Your task to perform on an android device: Add "razer blade" to the cart on walmart.com, then select checkout. Image 0: 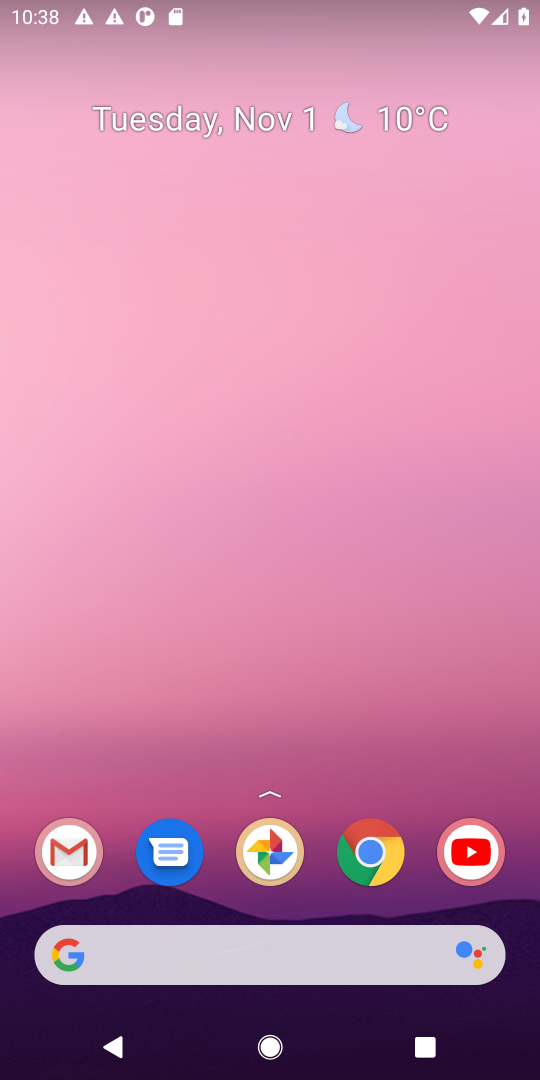
Step 0: press home button
Your task to perform on an android device: Add "razer blade" to the cart on walmart.com, then select checkout. Image 1: 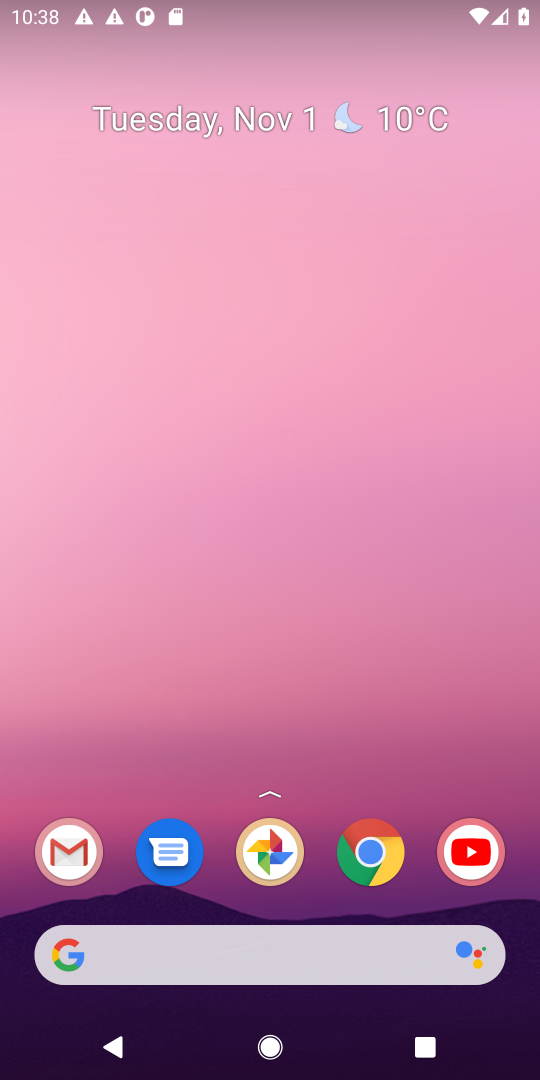
Step 1: click (67, 950)
Your task to perform on an android device: Add "razer blade" to the cart on walmart.com, then select checkout. Image 2: 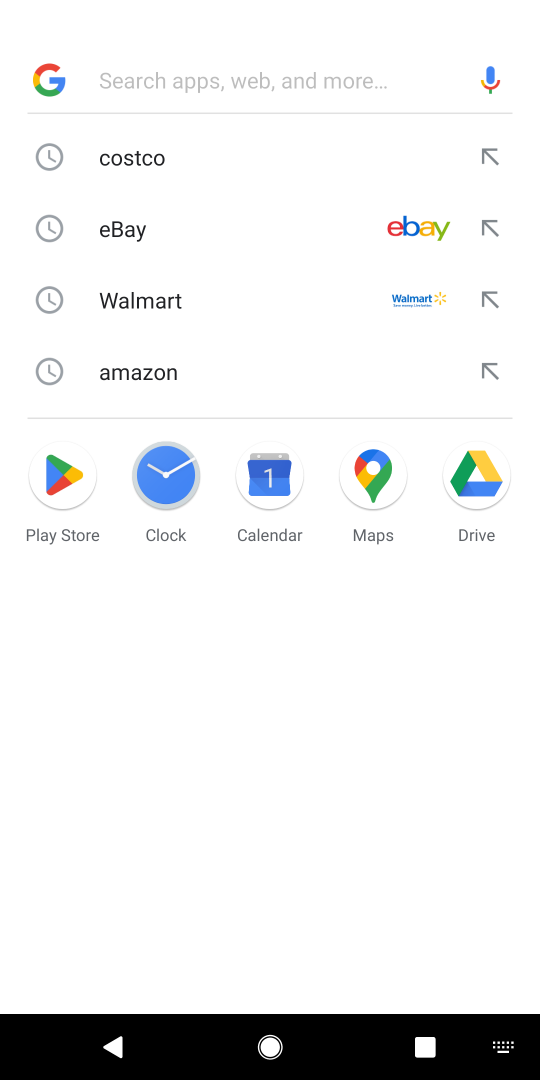
Step 2: click (144, 303)
Your task to perform on an android device: Add "razer blade" to the cart on walmart.com, then select checkout. Image 3: 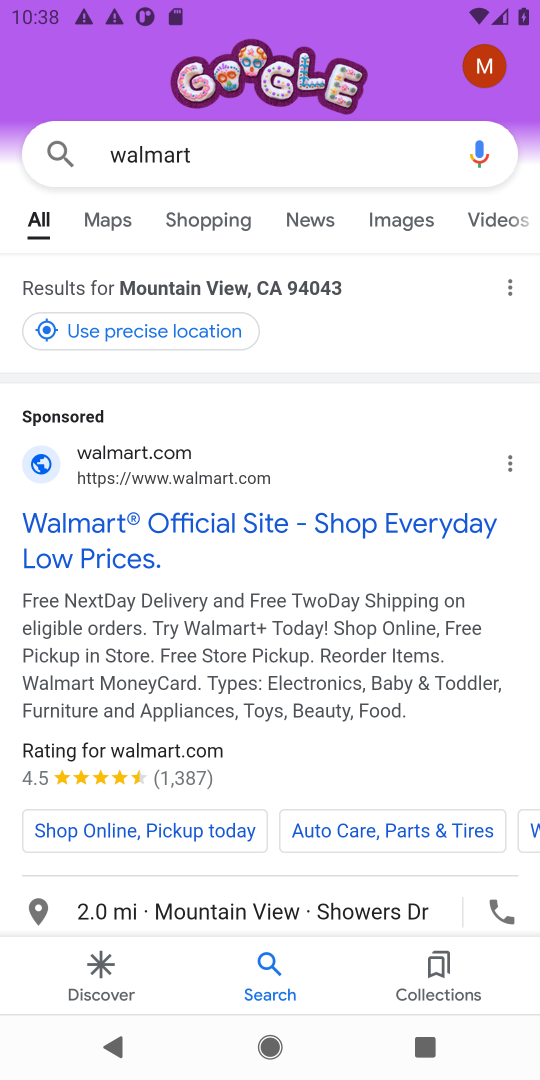
Step 3: drag from (138, 867) to (152, 507)
Your task to perform on an android device: Add "razer blade" to the cart on walmart.com, then select checkout. Image 4: 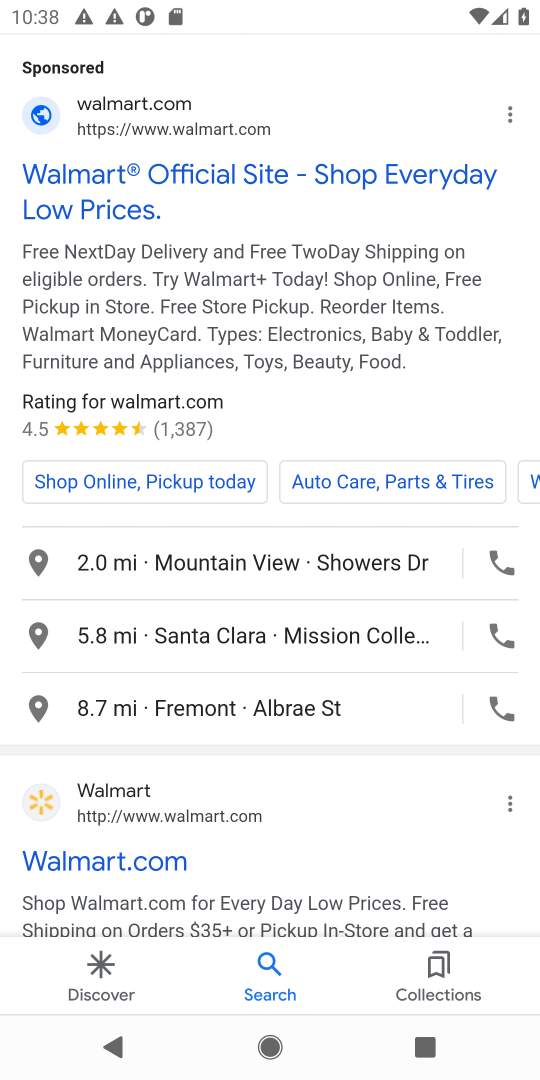
Step 4: click (122, 864)
Your task to perform on an android device: Add "razer blade" to the cart on walmart.com, then select checkout. Image 5: 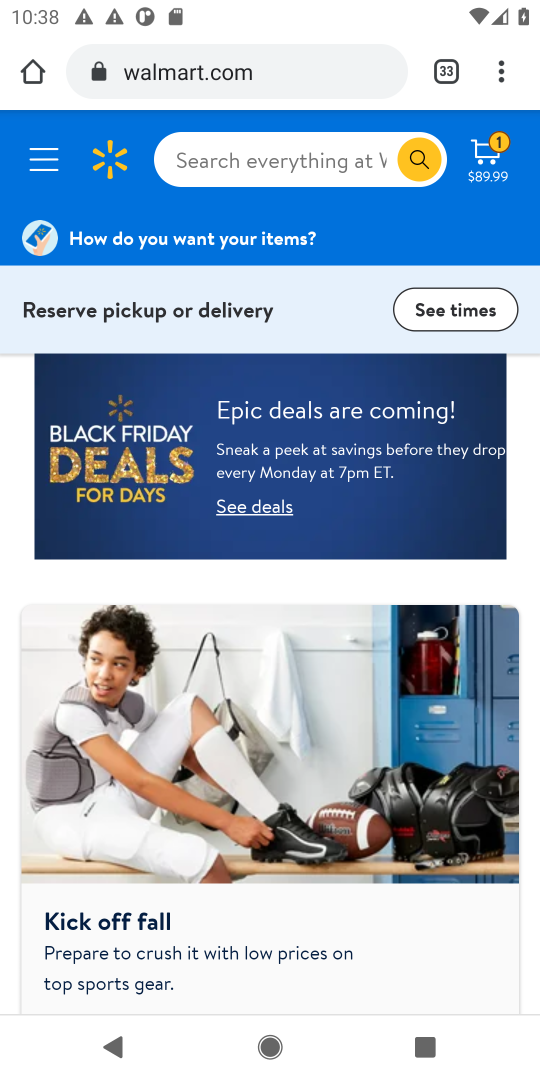
Step 5: click (263, 145)
Your task to perform on an android device: Add "razer blade" to the cart on walmart.com, then select checkout. Image 6: 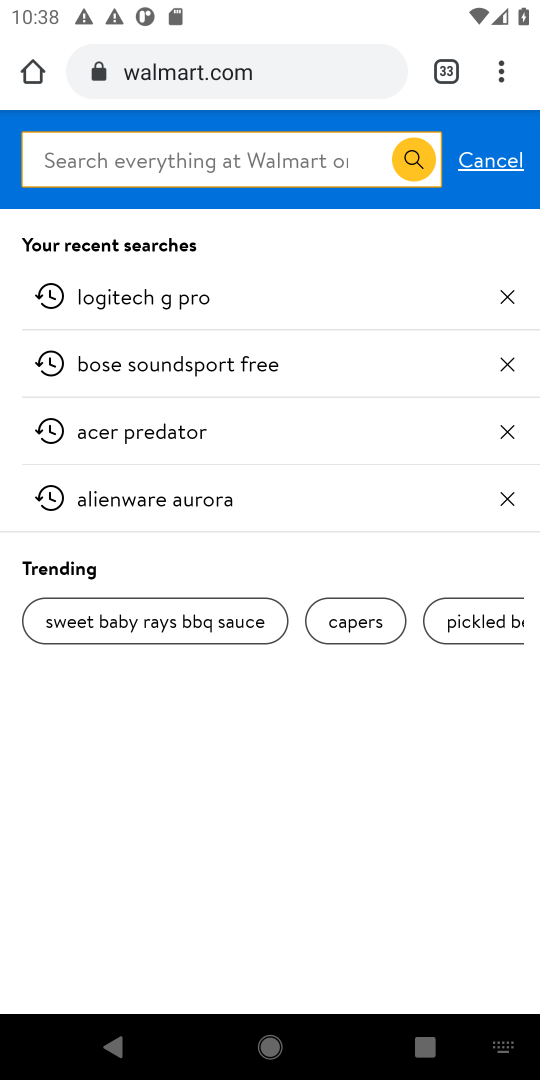
Step 6: type "razer blade"
Your task to perform on an android device: Add "razer blade" to the cart on walmart.com, then select checkout. Image 7: 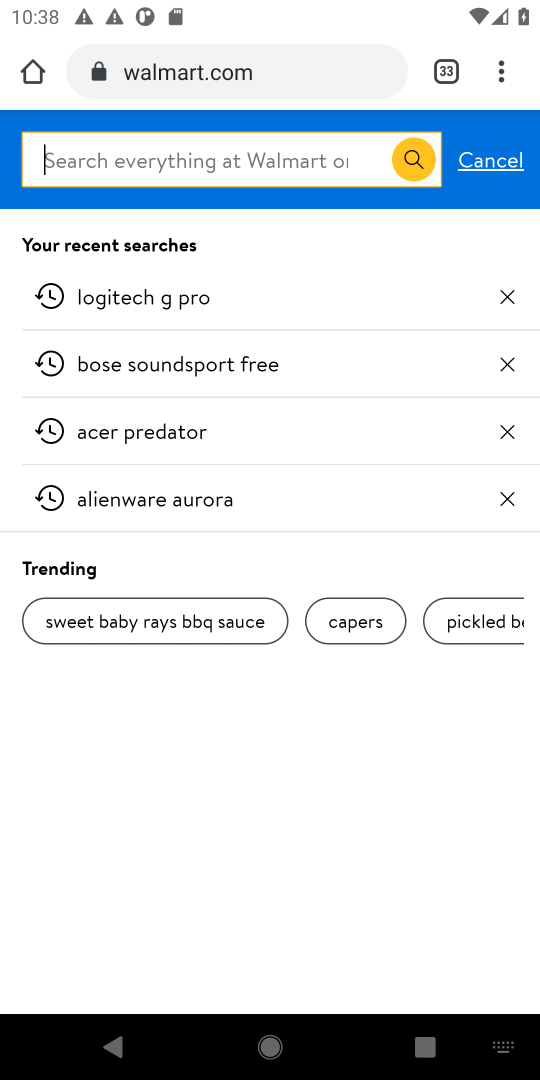
Step 7: click (92, 161)
Your task to perform on an android device: Add "razer blade" to the cart on walmart.com, then select checkout. Image 8: 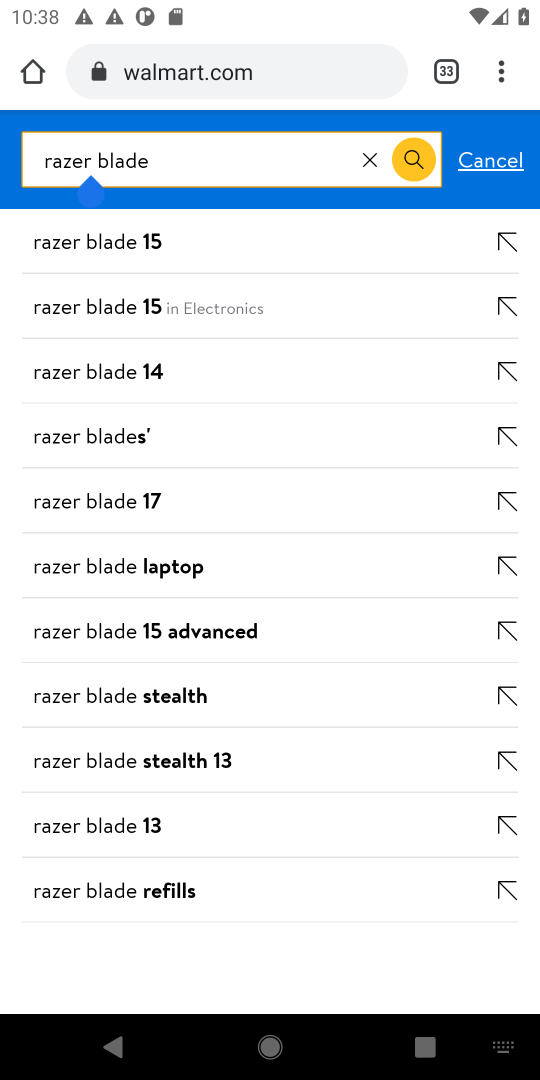
Step 8: press enter
Your task to perform on an android device: Add "razer blade" to the cart on walmart.com, then select checkout. Image 9: 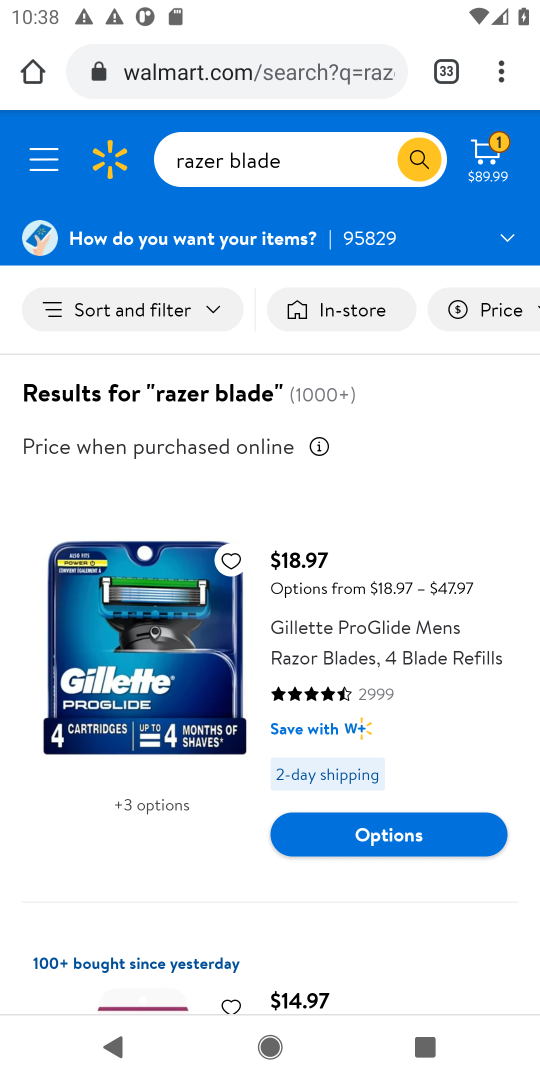
Step 9: drag from (381, 955) to (267, 812)
Your task to perform on an android device: Add "razer blade" to the cart on walmart.com, then select checkout. Image 10: 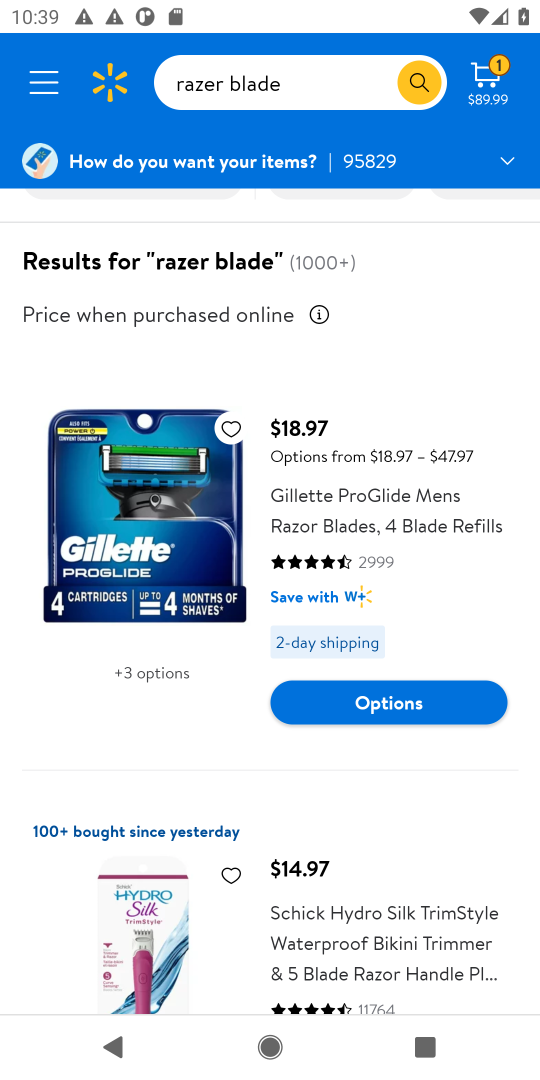
Step 10: click (325, 495)
Your task to perform on an android device: Add "razer blade" to the cart on walmart.com, then select checkout. Image 11: 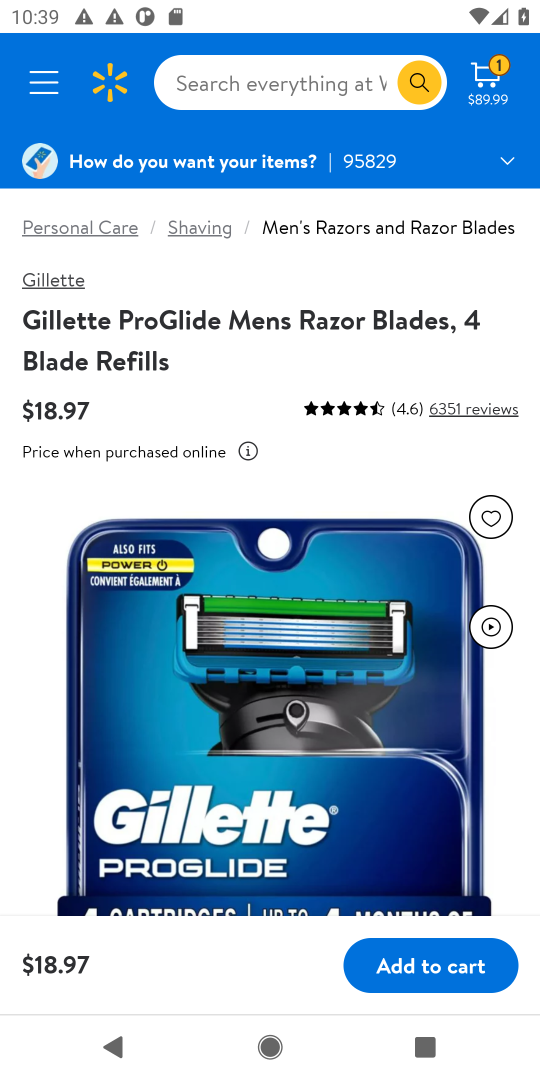
Step 11: drag from (261, 912) to (259, 694)
Your task to perform on an android device: Add "razer blade" to the cart on walmart.com, then select checkout. Image 12: 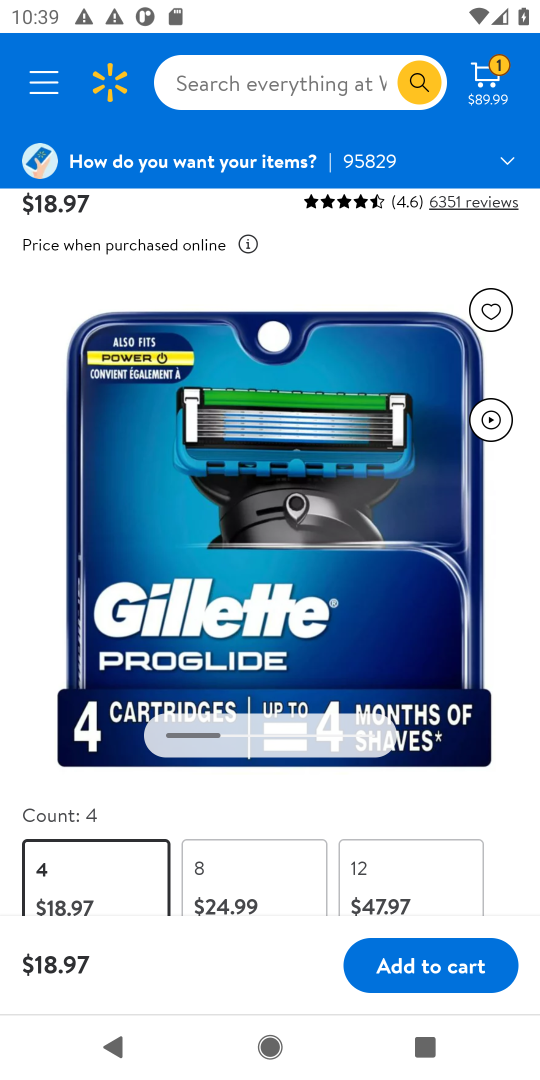
Step 12: click (445, 969)
Your task to perform on an android device: Add "razer blade" to the cart on walmart.com, then select checkout. Image 13: 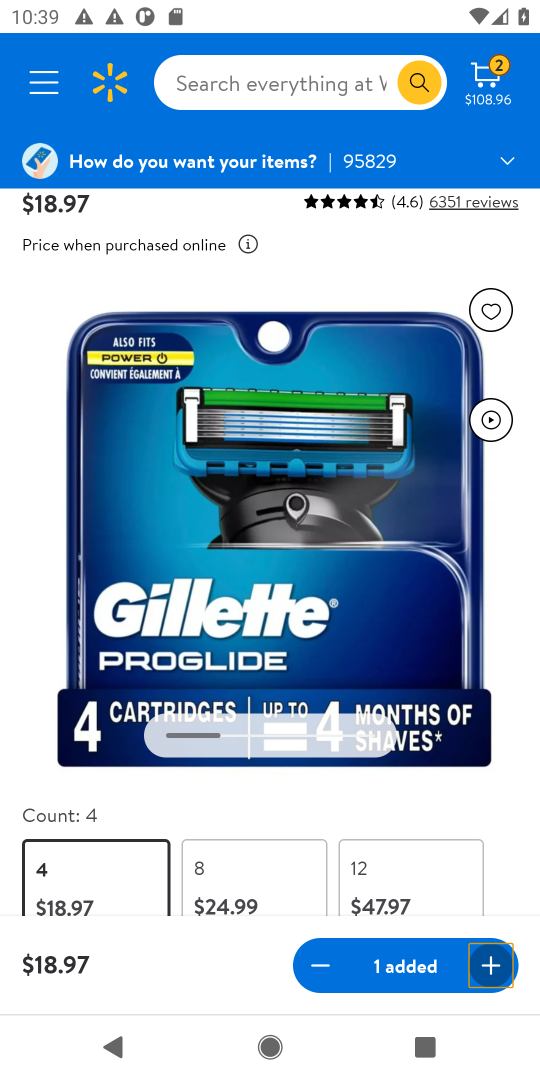
Step 13: click (487, 77)
Your task to perform on an android device: Add "razer blade" to the cart on walmart.com, then select checkout. Image 14: 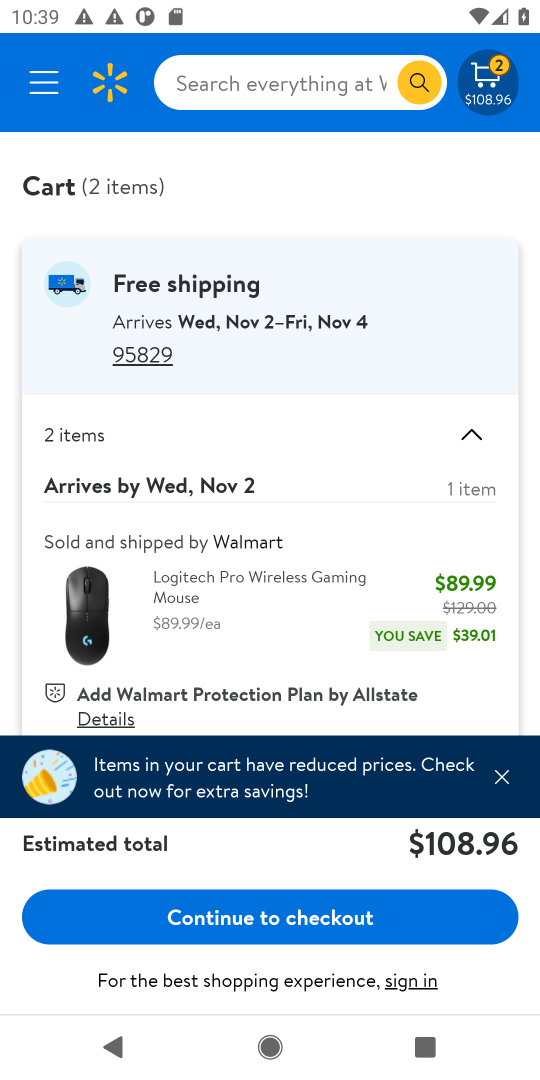
Step 14: click (340, 915)
Your task to perform on an android device: Add "razer blade" to the cart on walmart.com, then select checkout. Image 15: 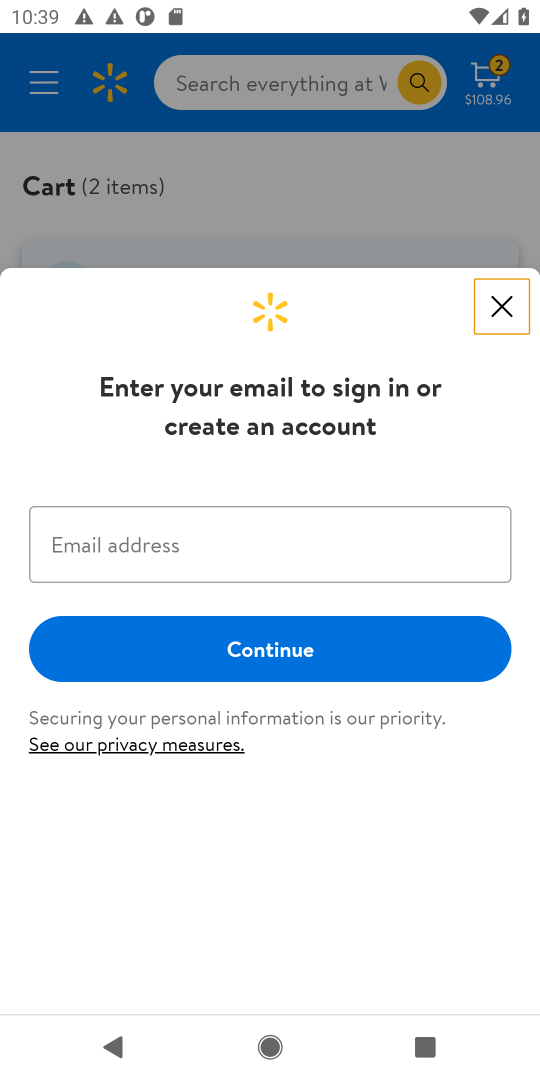
Step 15: task complete